Your task to perform on an android device: change your default location settings in chrome Image 0: 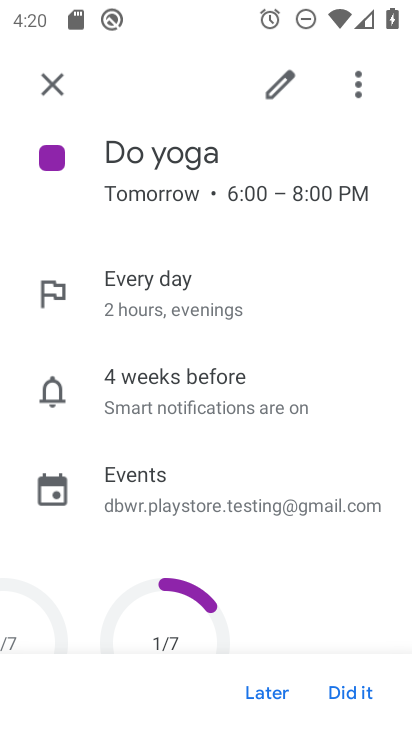
Step 0: press back button
Your task to perform on an android device: change your default location settings in chrome Image 1: 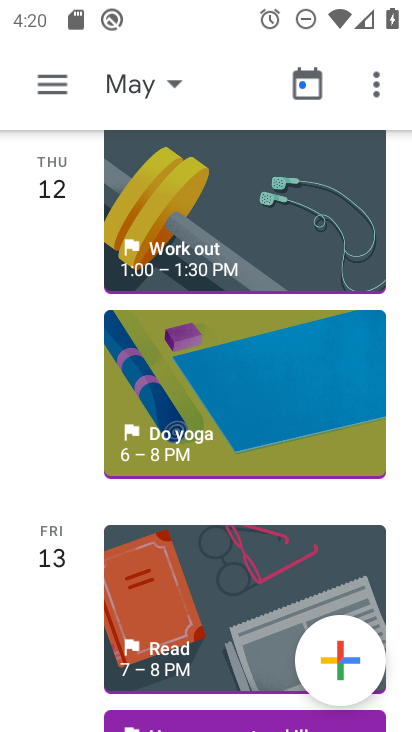
Step 1: press home button
Your task to perform on an android device: change your default location settings in chrome Image 2: 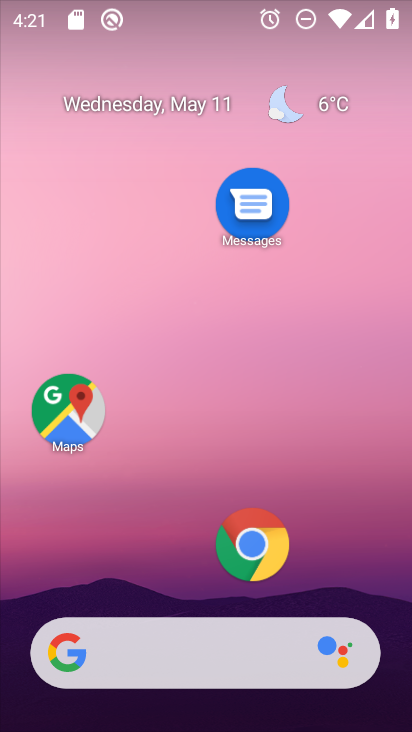
Step 2: click (253, 534)
Your task to perform on an android device: change your default location settings in chrome Image 3: 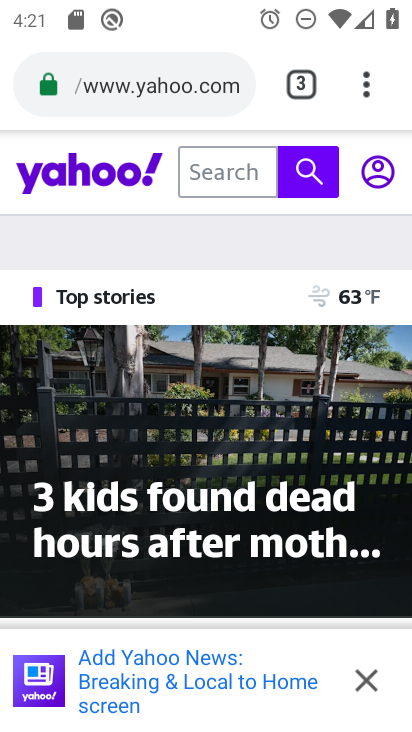
Step 3: drag from (368, 83) to (142, 589)
Your task to perform on an android device: change your default location settings in chrome Image 4: 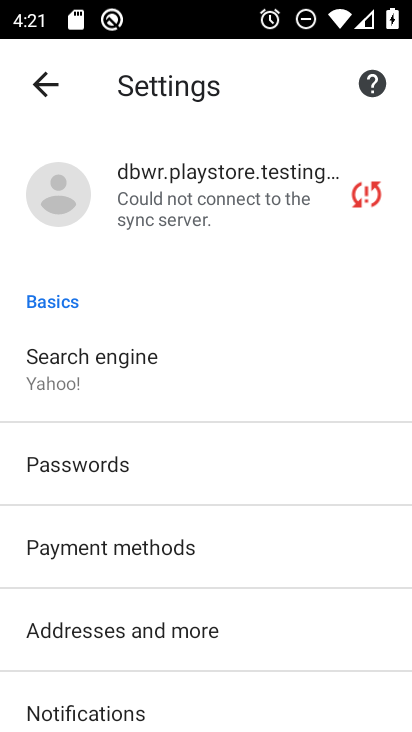
Step 4: drag from (152, 670) to (268, 211)
Your task to perform on an android device: change your default location settings in chrome Image 5: 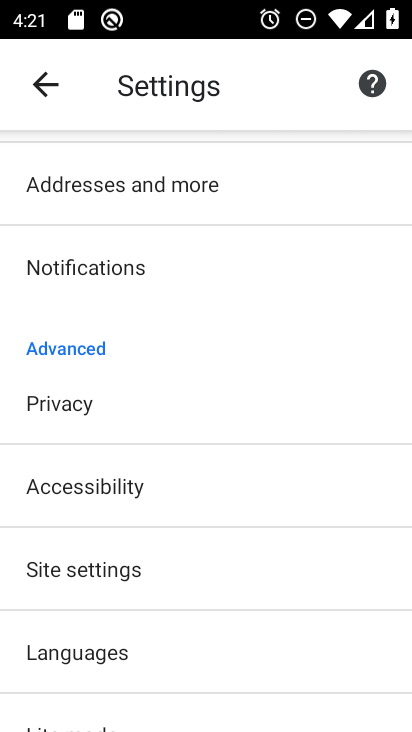
Step 5: drag from (161, 613) to (233, 336)
Your task to perform on an android device: change your default location settings in chrome Image 6: 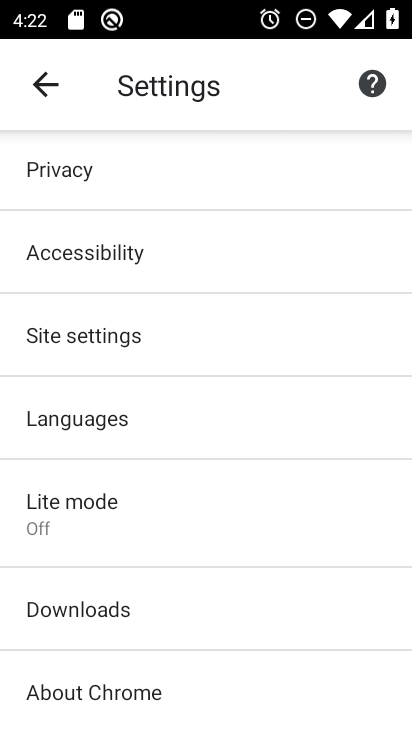
Step 6: click (144, 340)
Your task to perform on an android device: change your default location settings in chrome Image 7: 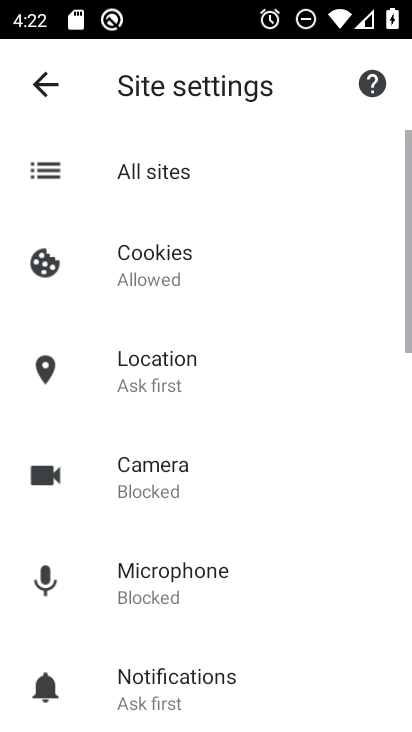
Step 7: click (192, 372)
Your task to perform on an android device: change your default location settings in chrome Image 8: 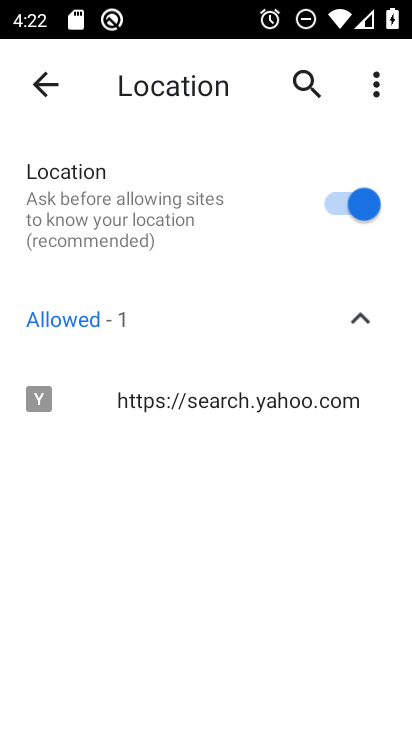
Step 8: click (353, 217)
Your task to perform on an android device: change your default location settings in chrome Image 9: 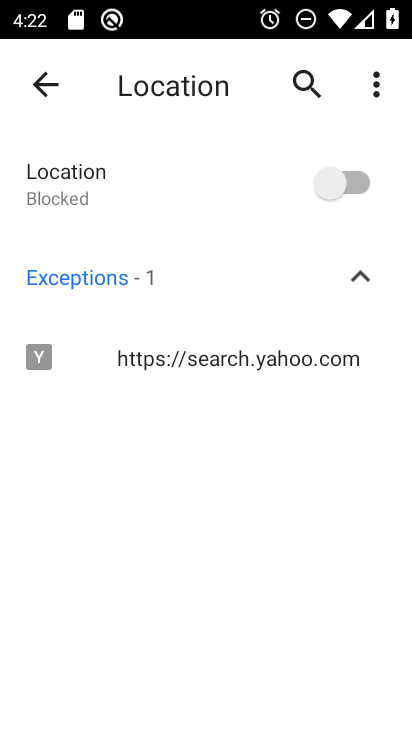
Step 9: task complete